Your task to perform on an android device: check out phone information Image 0: 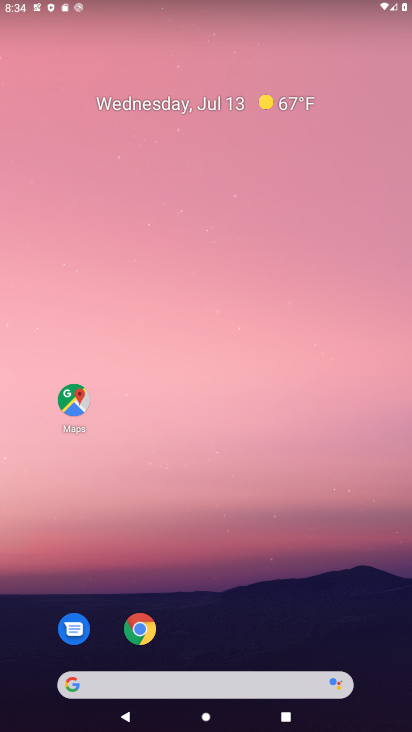
Step 0: drag from (233, 621) to (397, 409)
Your task to perform on an android device: check out phone information Image 1: 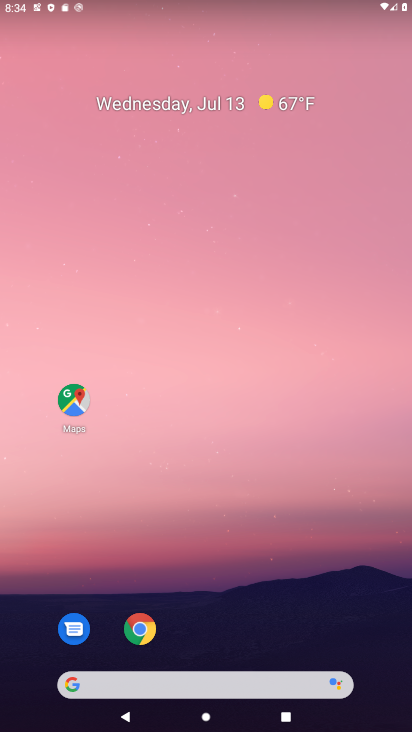
Step 1: drag from (191, 655) to (213, 119)
Your task to perform on an android device: check out phone information Image 2: 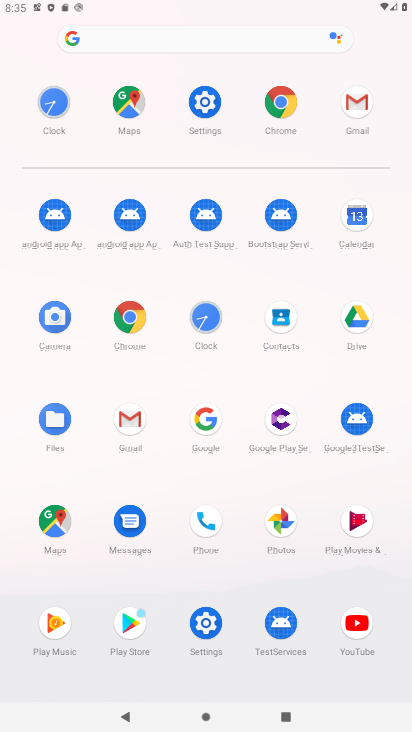
Step 2: click (210, 643)
Your task to perform on an android device: check out phone information Image 3: 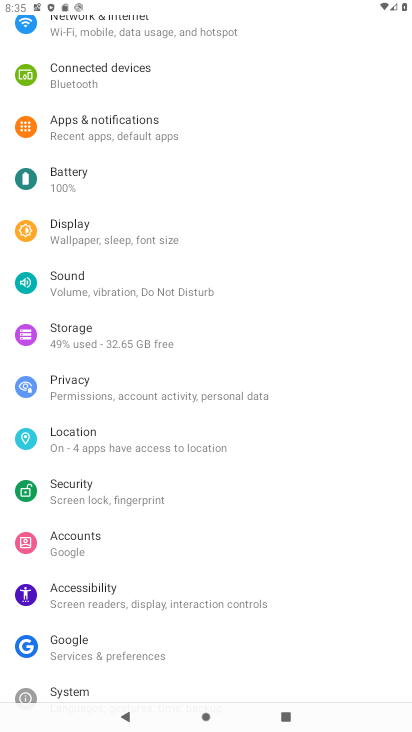
Step 3: drag from (124, 646) to (166, 40)
Your task to perform on an android device: check out phone information Image 4: 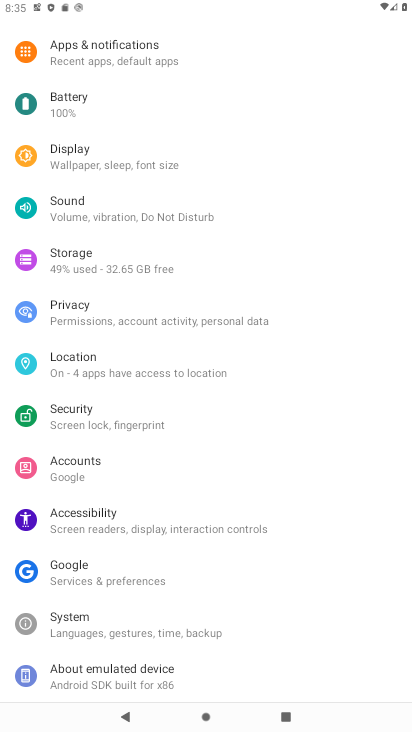
Step 4: click (135, 678)
Your task to perform on an android device: check out phone information Image 5: 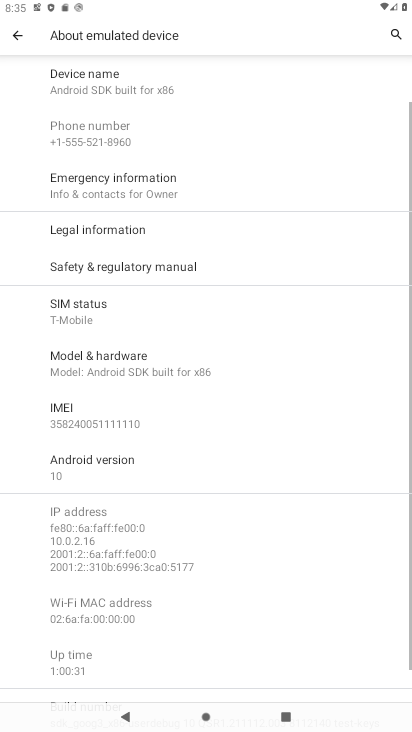
Step 5: task complete